Your task to perform on an android device: Go to ESPN.com Image 0: 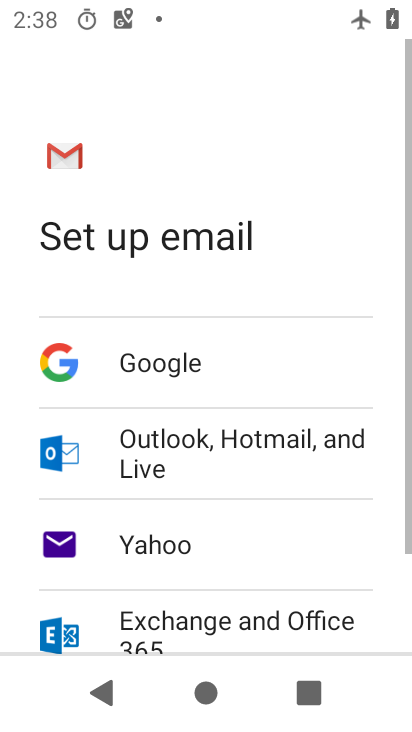
Step 0: press home button
Your task to perform on an android device: Go to ESPN.com Image 1: 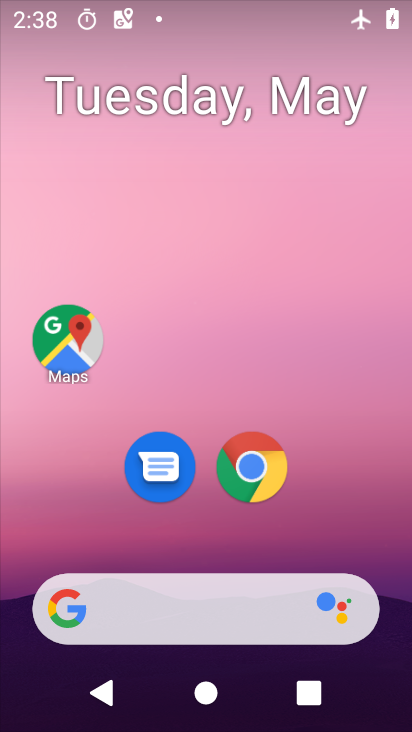
Step 1: drag from (364, 527) to (358, 115)
Your task to perform on an android device: Go to ESPN.com Image 2: 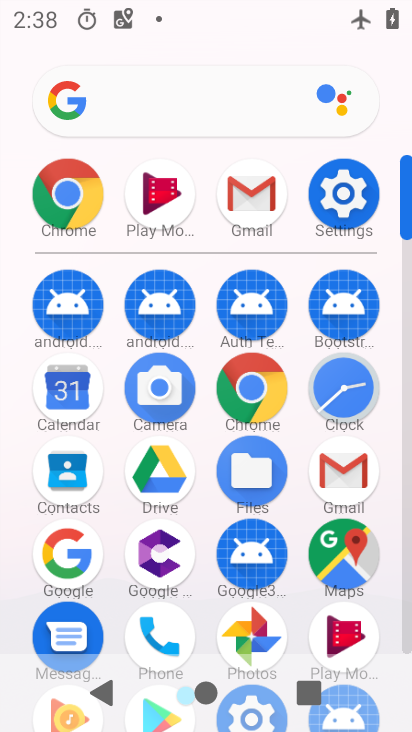
Step 2: click (258, 405)
Your task to perform on an android device: Go to ESPN.com Image 3: 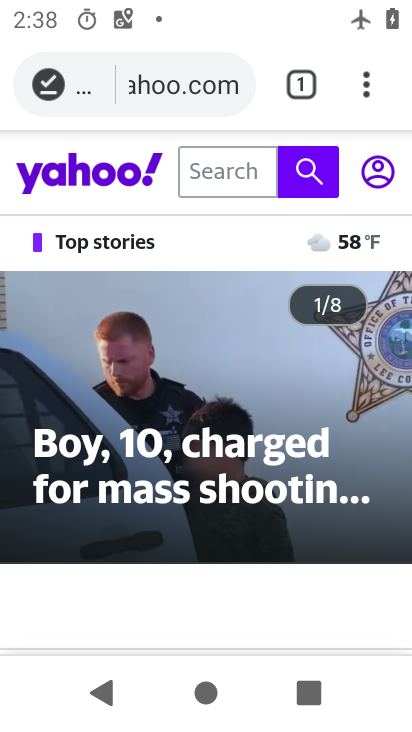
Step 3: click (194, 88)
Your task to perform on an android device: Go to ESPN.com Image 4: 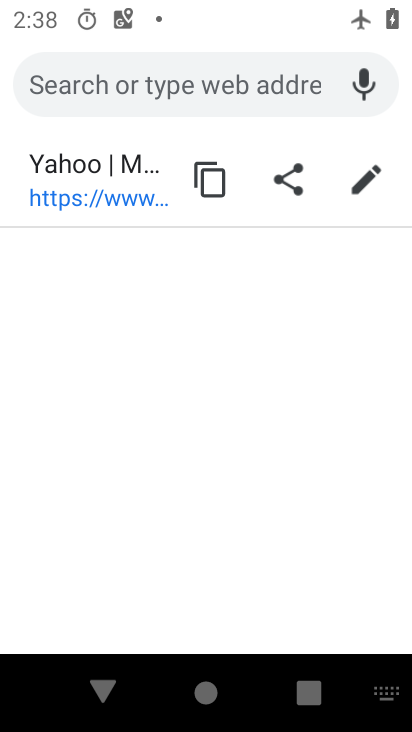
Step 4: type "espn.com"
Your task to perform on an android device: Go to ESPN.com Image 5: 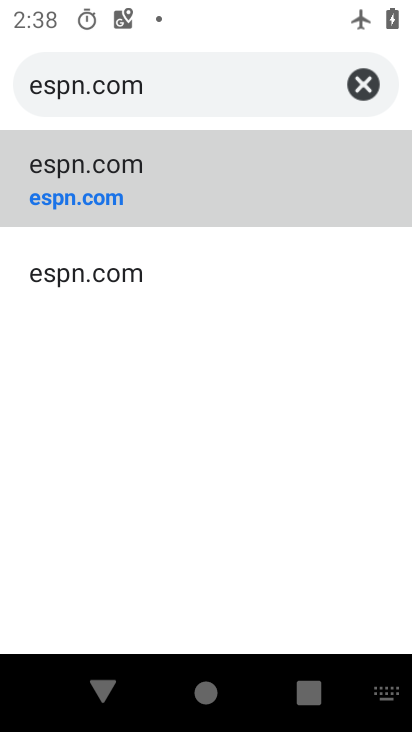
Step 5: click (109, 179)
Your task to perform on an android device: Go to ESPN.com Image 6: 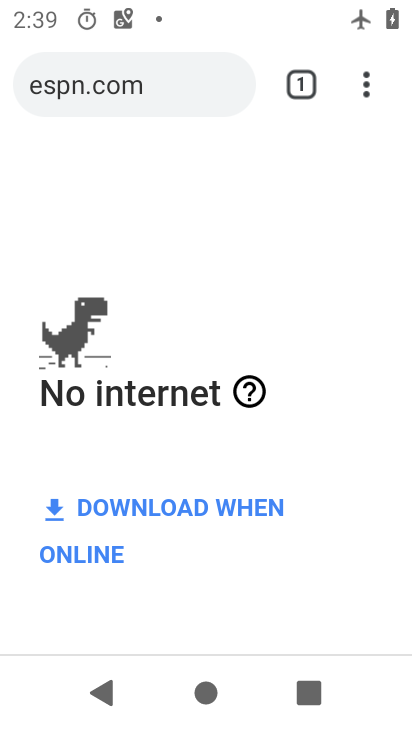
Step 6: task complete